Your task to perform on an android device: change your default location settings in chrome Image 0: 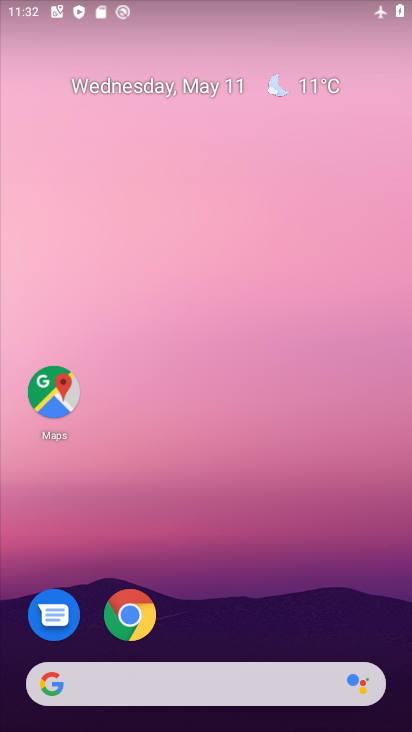
Step 0: click (134, 619)
Your task to perform on an android device: change your default location settings in chrome Image 1: 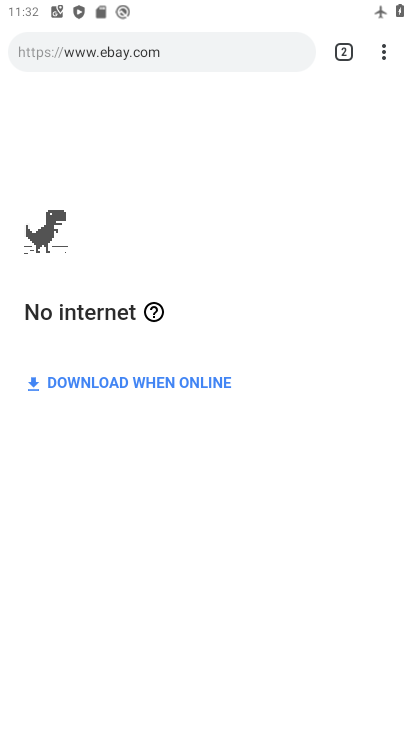
Step 1: drag from (373, 50) to (180, 576)
Your task to perform on an android device: change your default location settings in chrome Image 2: 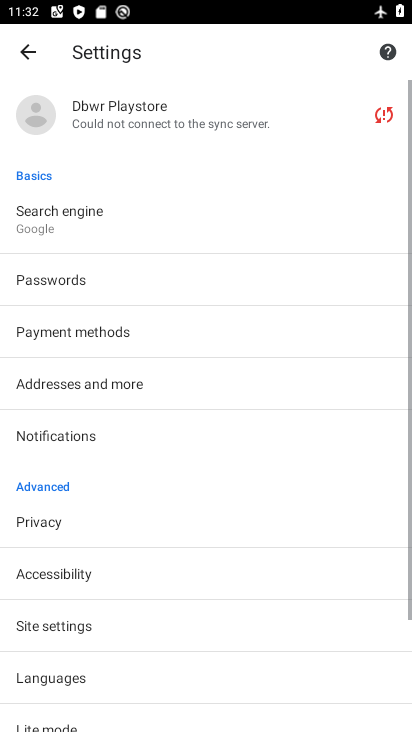
Step 2: drag from (180, 562) to (244, 214)
Your task to perform on an android device: change your default location settings in chrome Image 3: 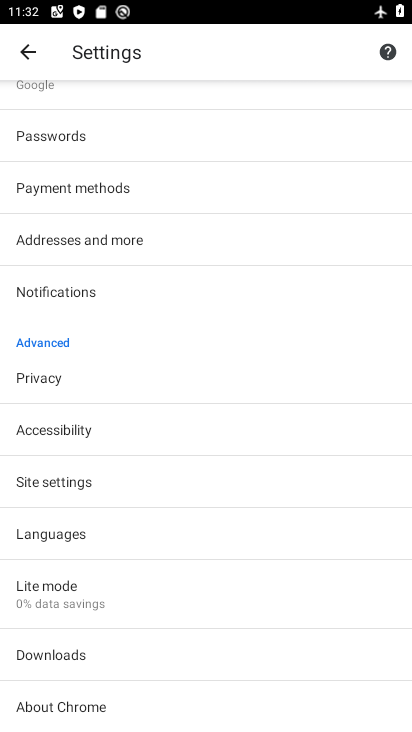
Step 3: click (71, 485)
Your task to perform on an android device: change your default location settings in chrome Image 4: 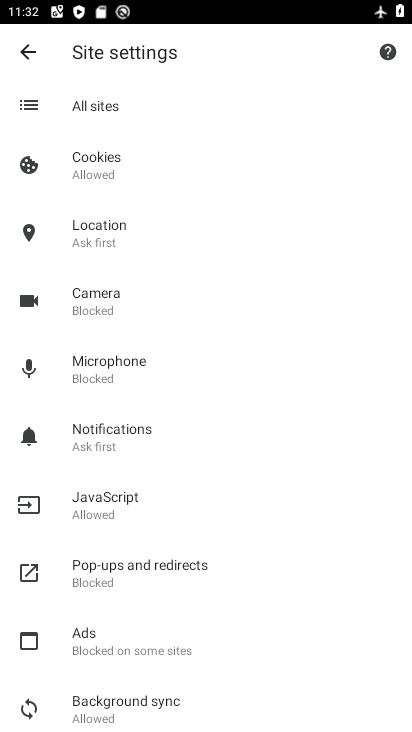
Step 4: click (158, 231)
Your task to perform on an android device: change your default location settings in chrome Image 5: 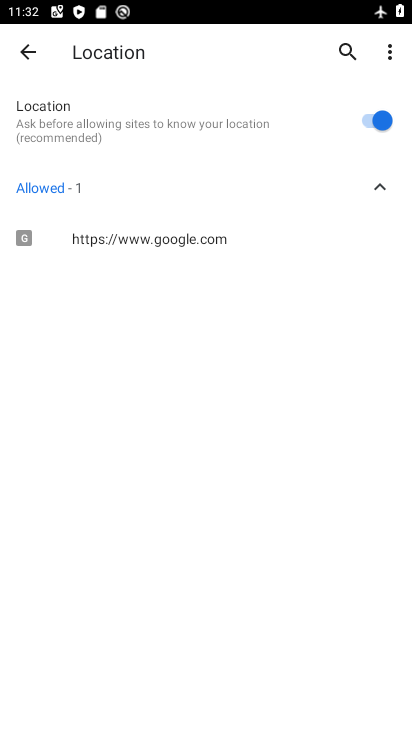
Step 5: click (356, 118)
Your task to perform on an android device: change your default location settings in chrome Image 6: 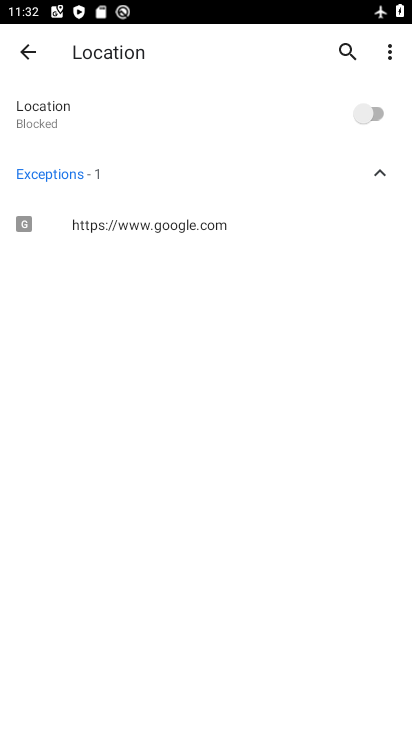
Step 6: task complete